Your task to perform on an android device: Open calendar and show me the third week of next month Image 0: 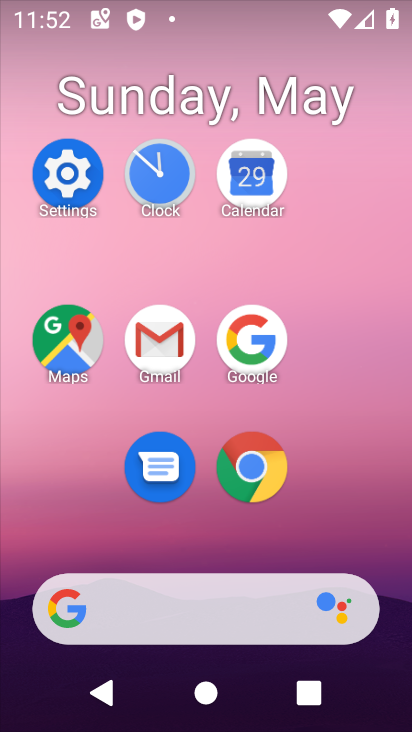
Step 0: click (252, 157)
Your task to perform on an android device: Open calendar and show me the third week of next month Image 1: 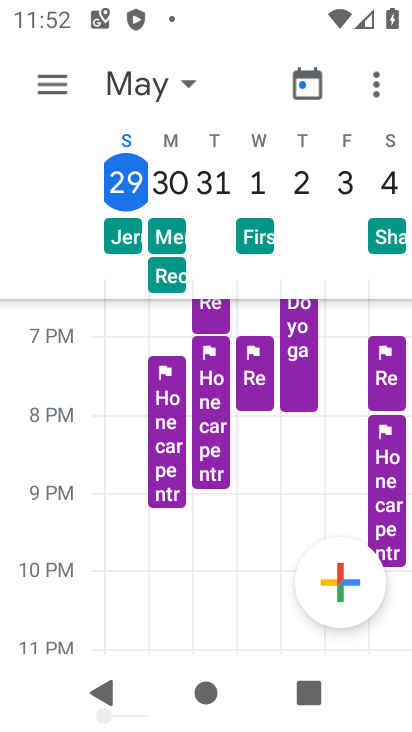
Step 1: task complete